Your task to perform on an android device: Open the calendar and show me this week's events Image 0: 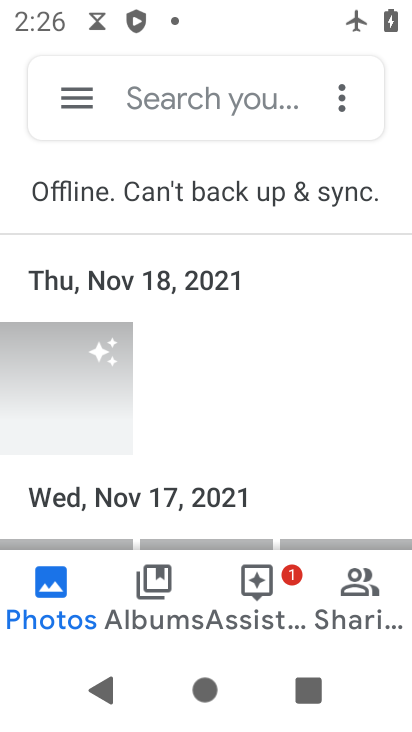
Step 0: press home button
Your task to perform on an android device: Open the calendar and show me this week's events Image 1: 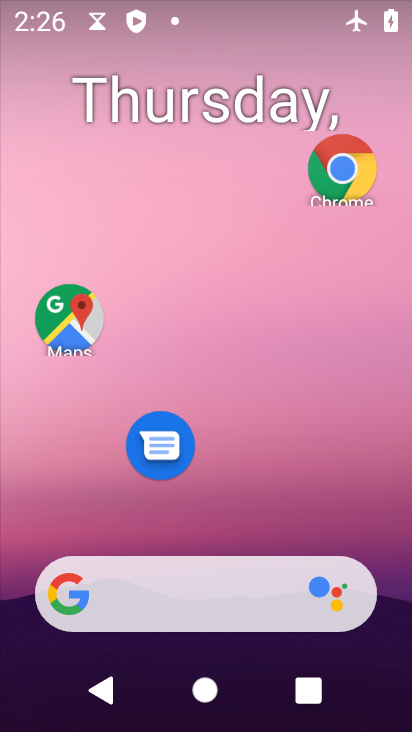
Step 1: drag from (169, 395) to (78, 115)
Your task to perform on an android device: Open the calendar and show me this week's events Image 2: 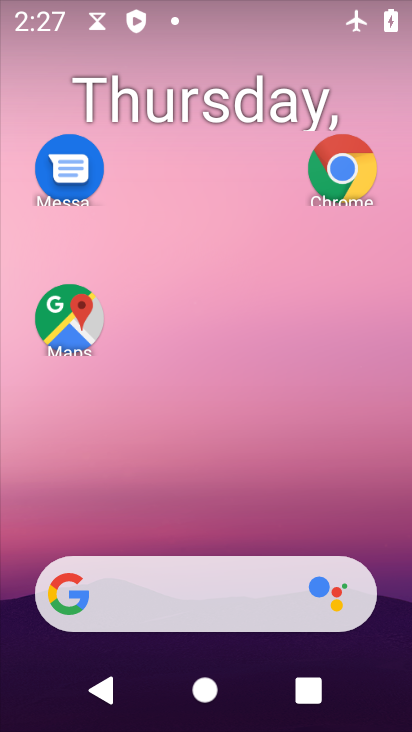
Step 2: drag from (205, 445) to (169, 120)
Your task to perform on an android device: Open the calendar and show me this week's events Image 3: 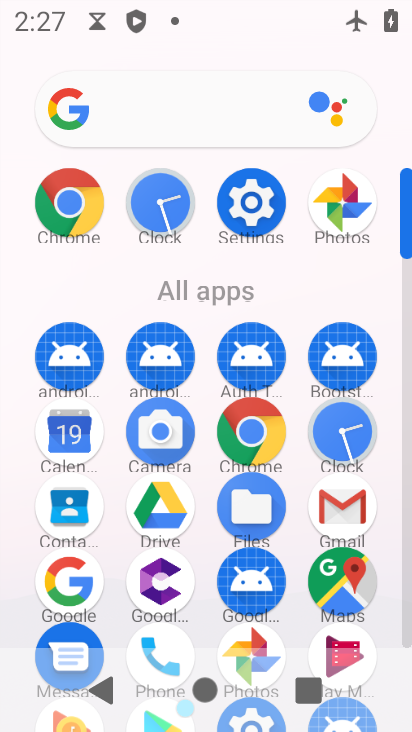
Step 3: click (66, 446)
Your task to perform on an android device: Open the calendar and show me this week's events Image 4: 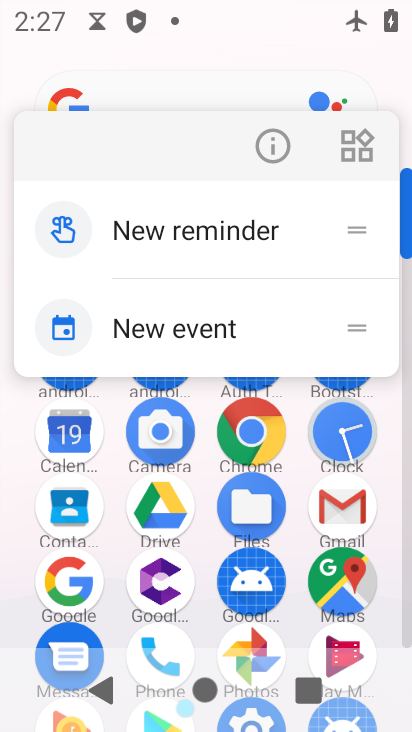
Step 4: click (53, 452)
Your task to perform on an android device: Open the calendar and show me this week's events Image 5: 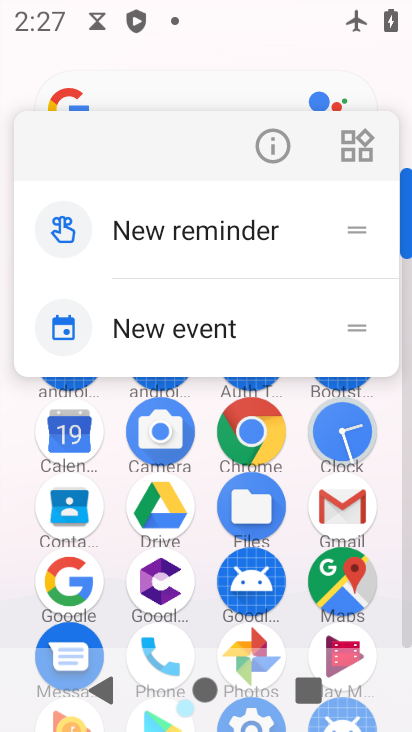
Step 5: click (77, 449)
Your task to perform on an android device: Open the calendar and show me this week's events Image 6: 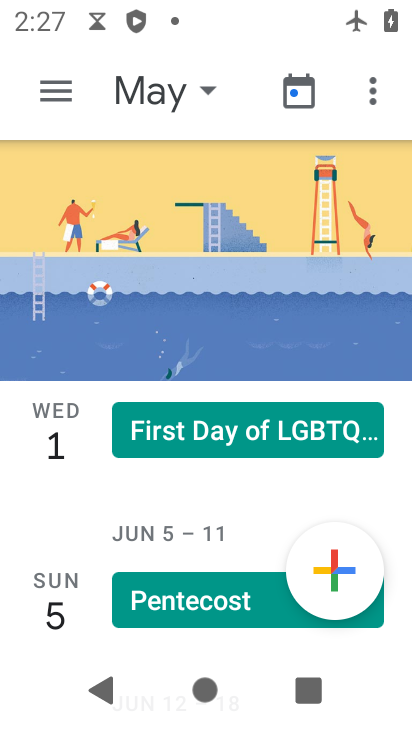
Step 6: click (157, 99)
Your task to perform on an android device: Open the calendar and show me this week's events Image 7: 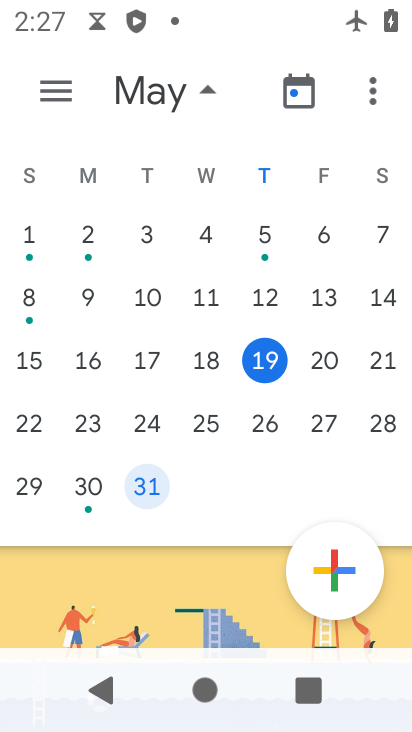
Step 7: click (64, 91)
Your task to perform on an android device: Open the calendar and show me this week's events Image 8: 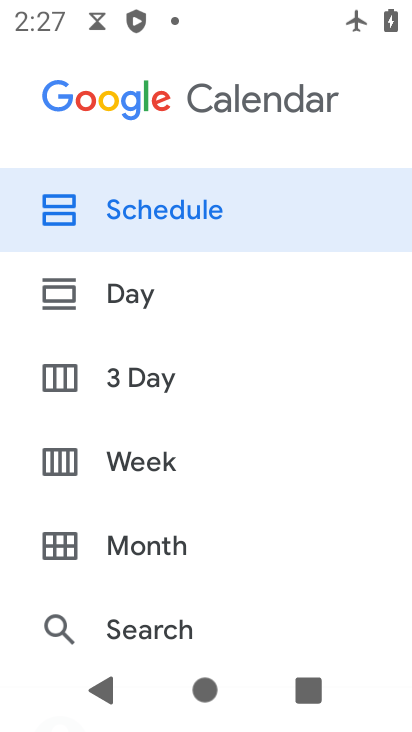
Step 8: click (143, 461)
Your task to perform on an android device: Open the calendar and show me this week's events Image 9: 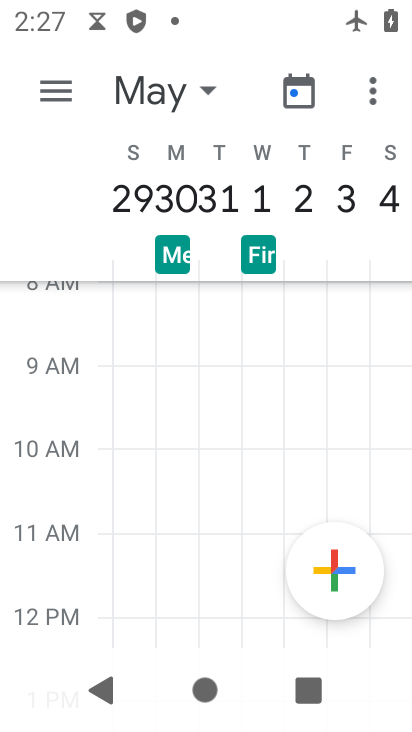
Step 9: click (143, 95)
Your task to perform on an android device: Open the calendar and show me this week's events Image 10: 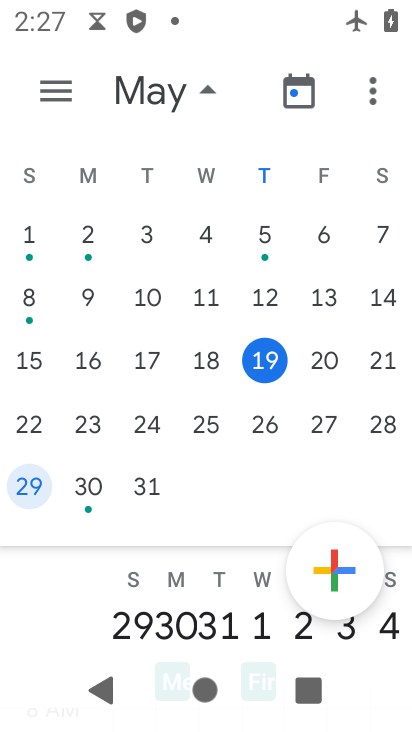
Step 10: click (35, 359)
Your task to perform on an android device: Open the calendar and show me this week's events Image 11: 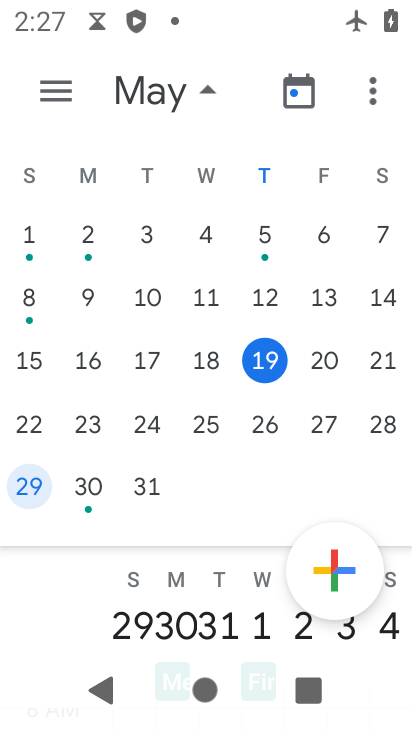
Step 11: task complete